Your task to perform on an android device: What is the news today? Image 0: 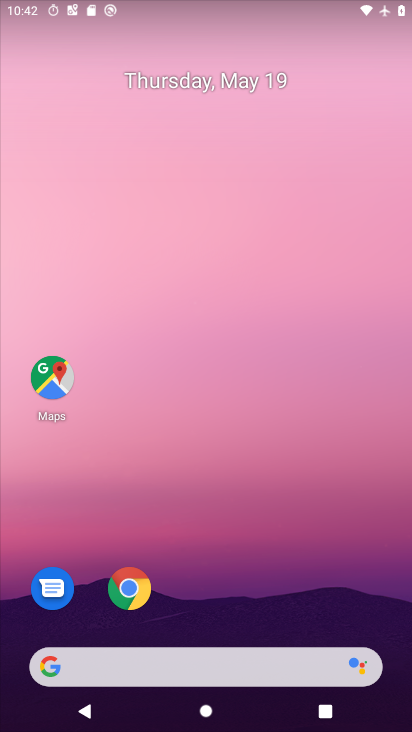
Step 0: press home button
Your task to perform on an android device: What is the news today? Image 1: 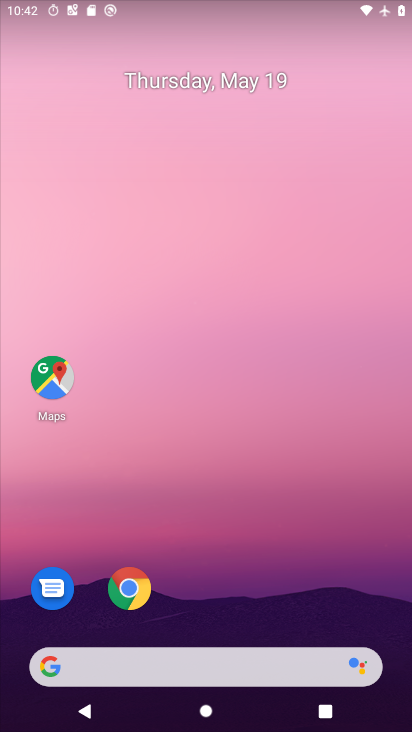
Step 1: click (50, 664)
Your task to perform on an android device: What is the news today? Image 2: 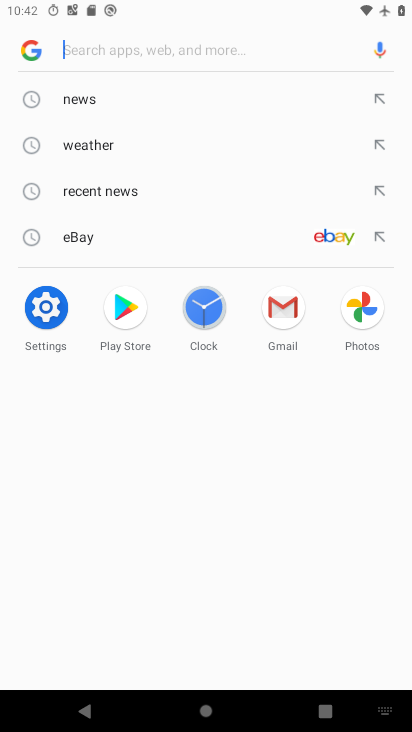
Step 2: click (95, 105)
Your task to perform on an android device: What is the news today? Image 3: 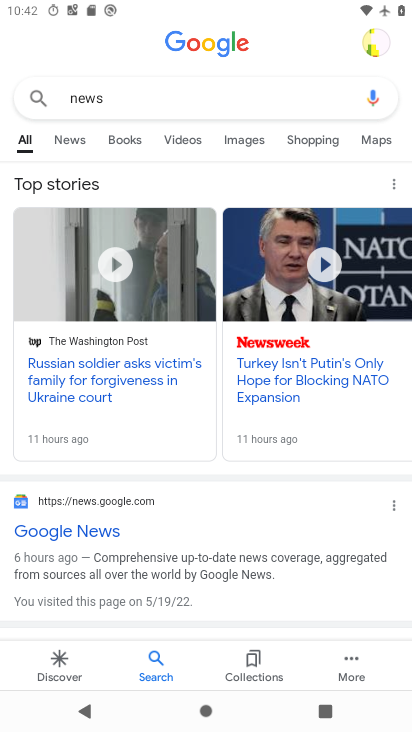
Step 3: click (64, 138)
Your task to perform on an android device: What is the news today? Image 4: 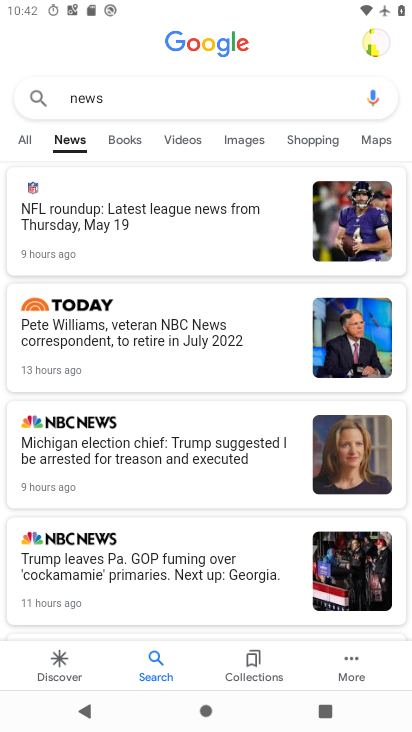
Step 4: task complete